Your task to perform on an android device: turn notification dots off Image 0: 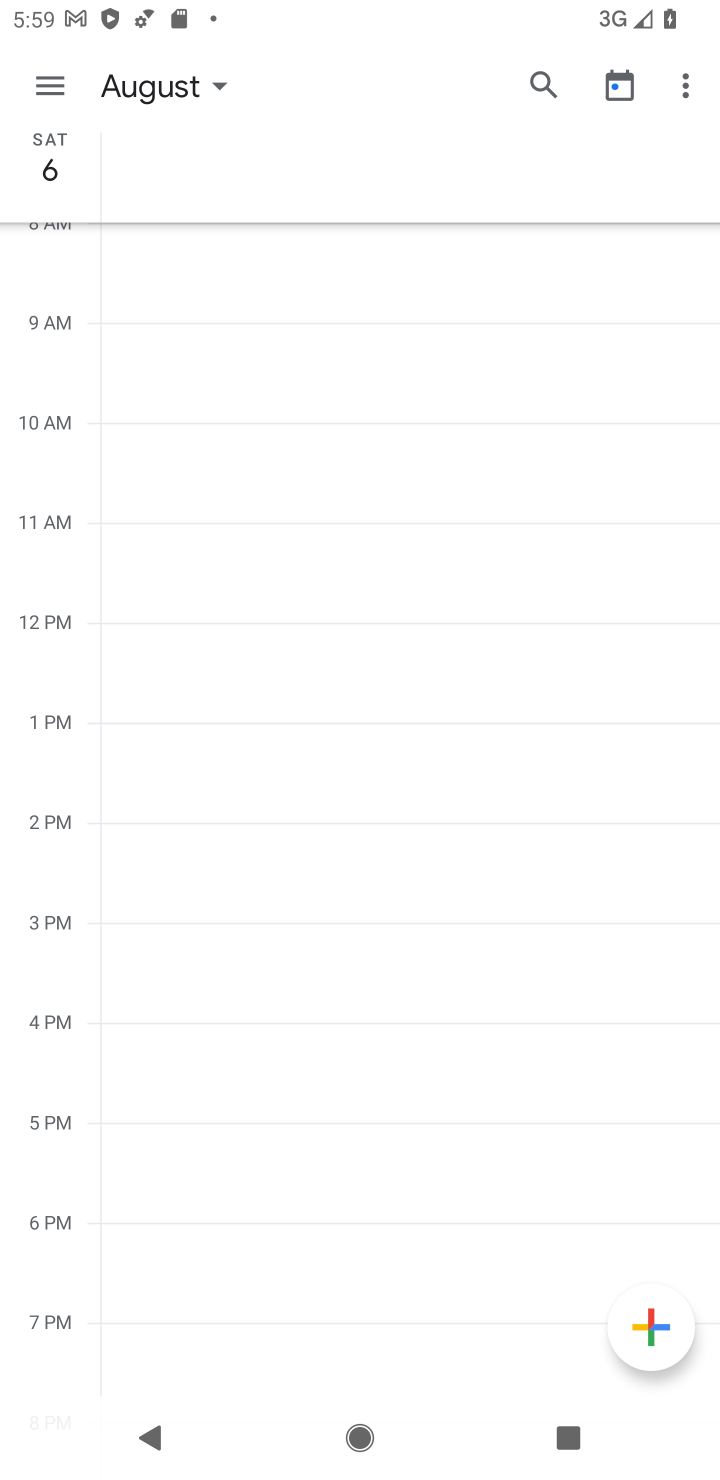
Step 0: press home button
Your task to perform on an android device: turn notification dots off Image 1: 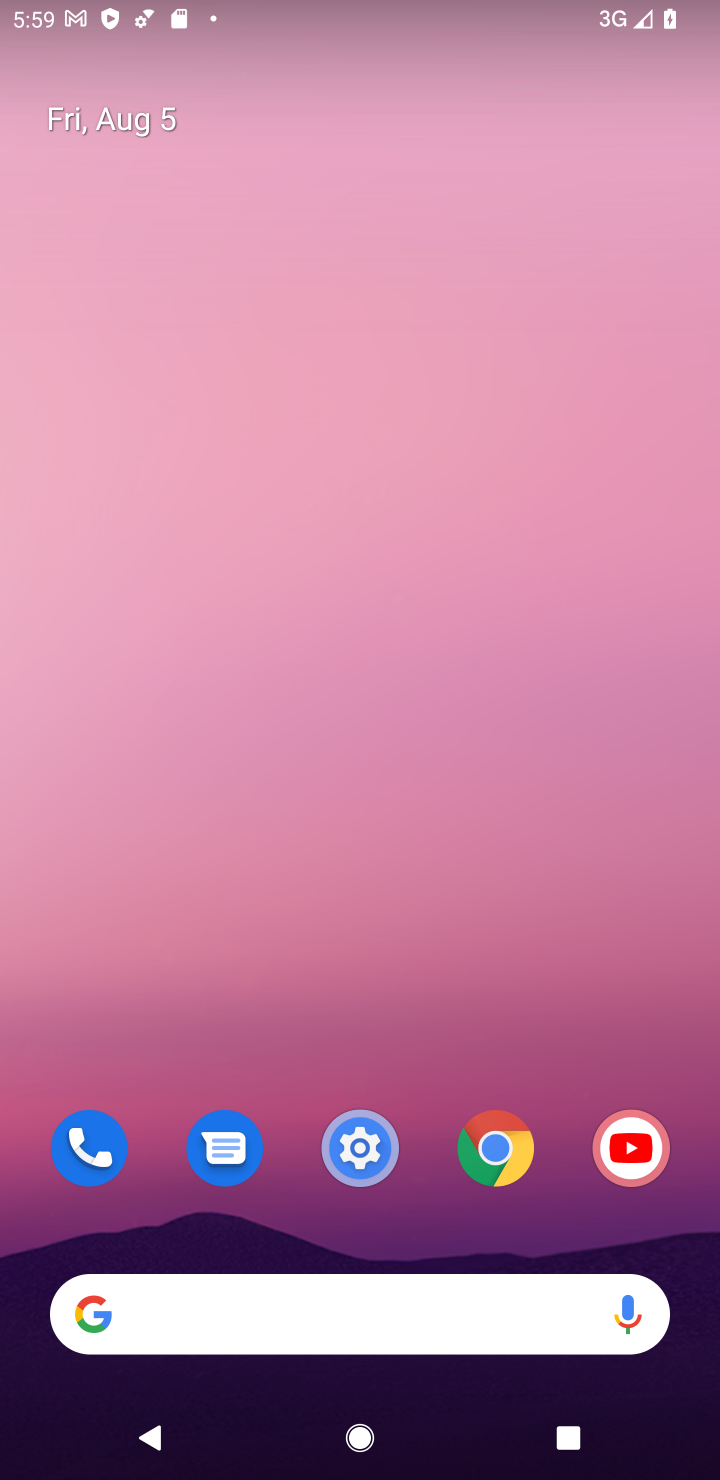
Step 1: click (364, 1148)
Your task to perform on an android device: turn notification dots off Image 2: 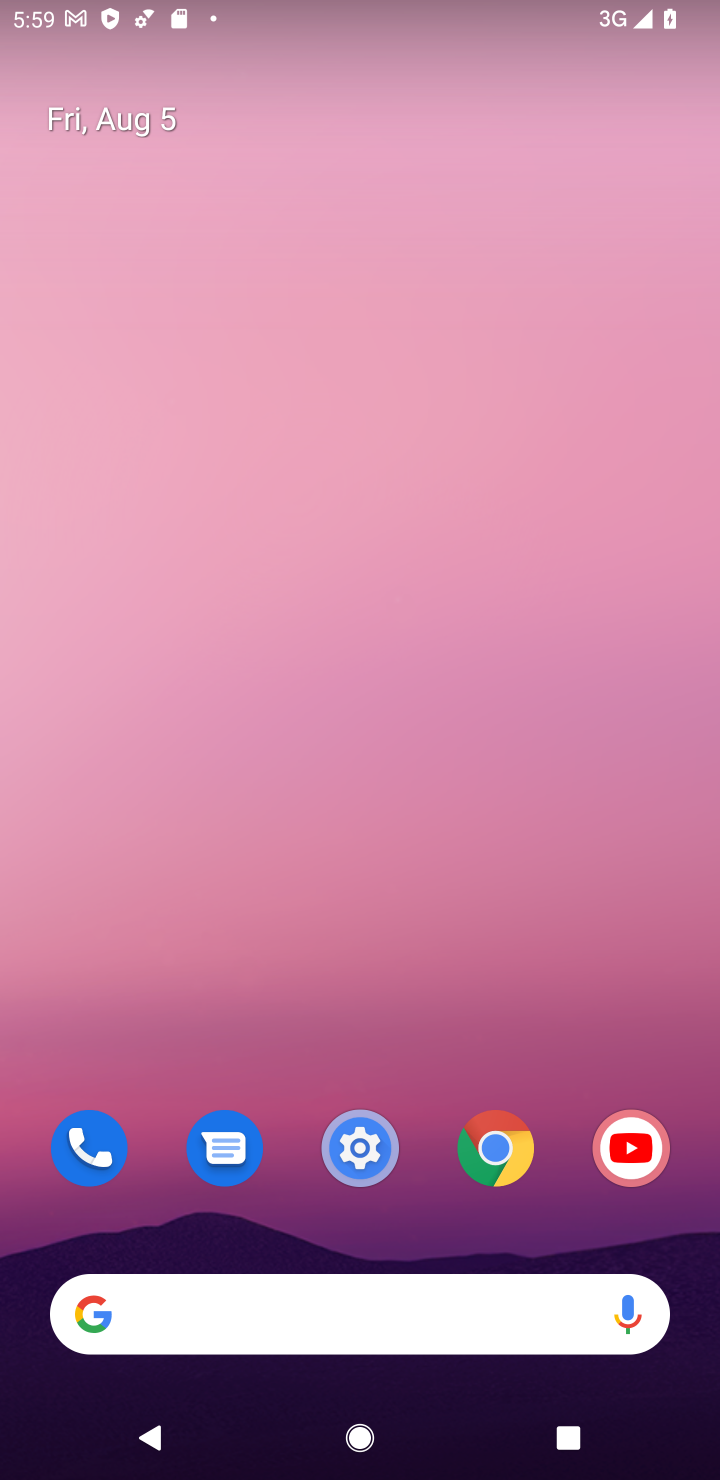
Step 2: click (362, 1143)
Your task to perform on an android device: turn notification dots off Image 3: 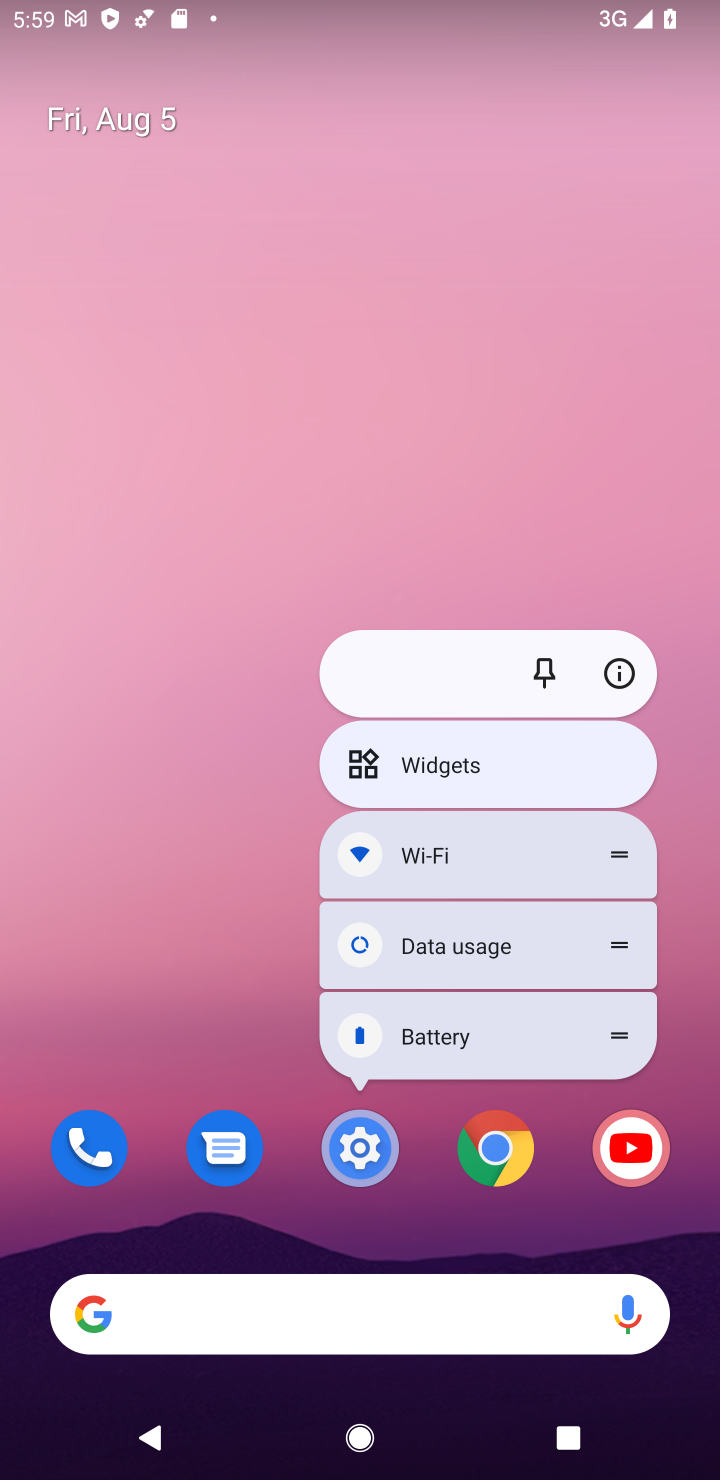
Step 3: click (362, 1143)
Your task to perform on an android device: turn notification dots off Image 4: 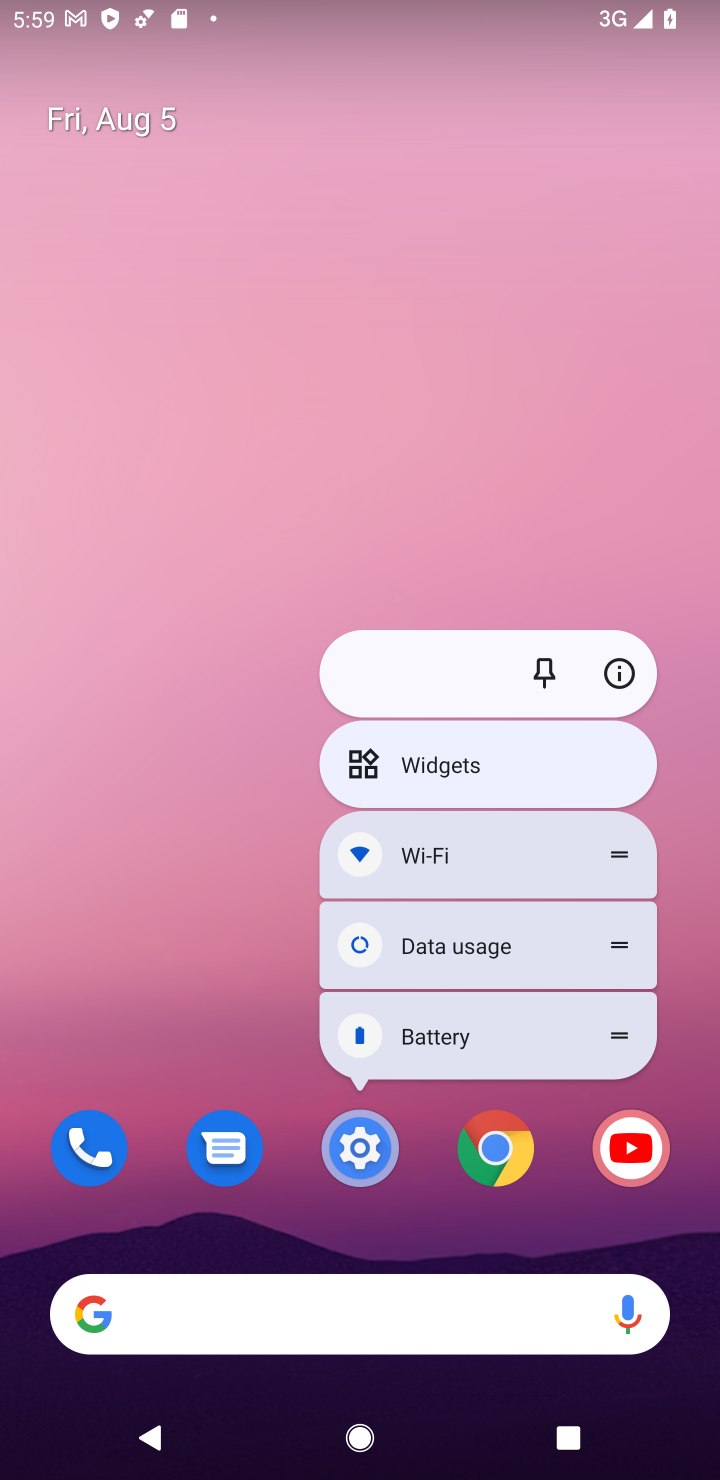
Step 4: click (350, 1157)
Your task to perform on an android device: turn notification dots off Image 5: 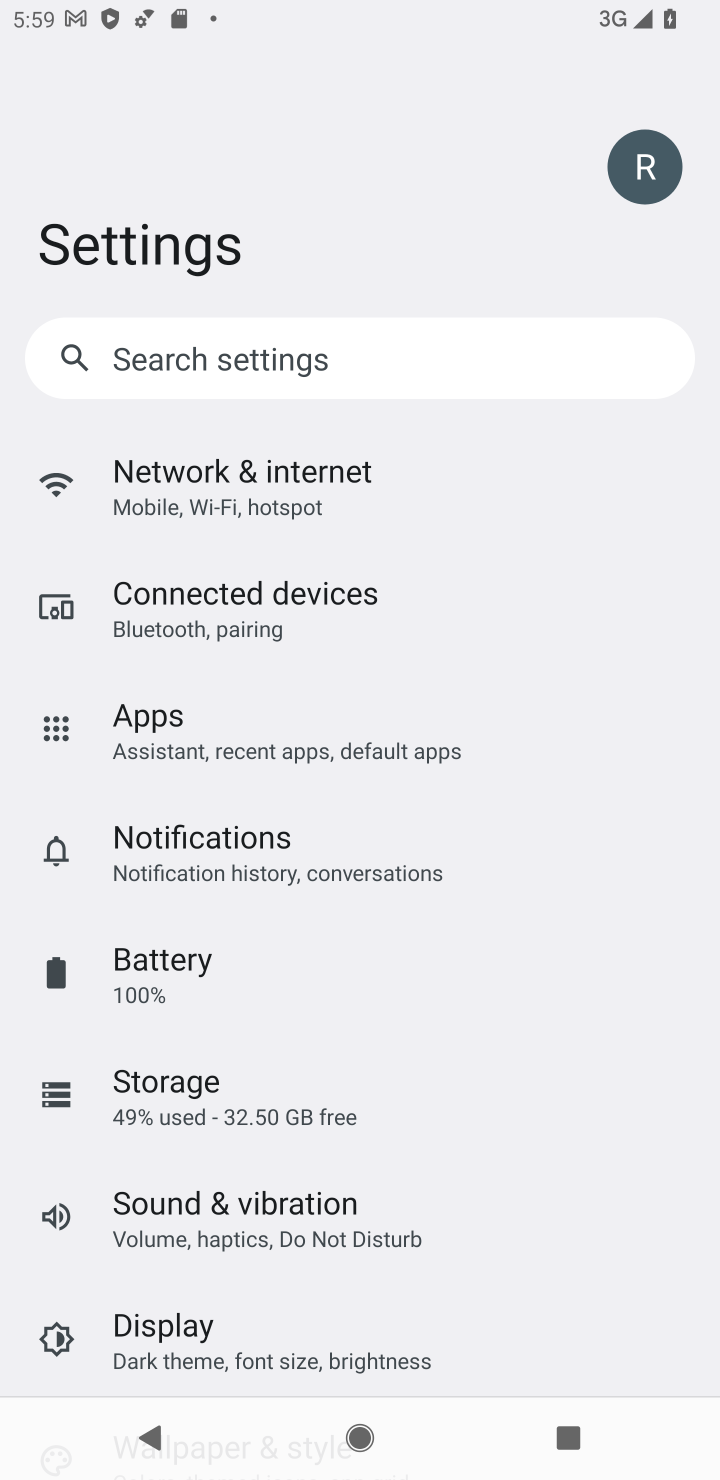
Step 5: click (228, 824)
Your task to perform on an android device: turn notification dots off Image 6: 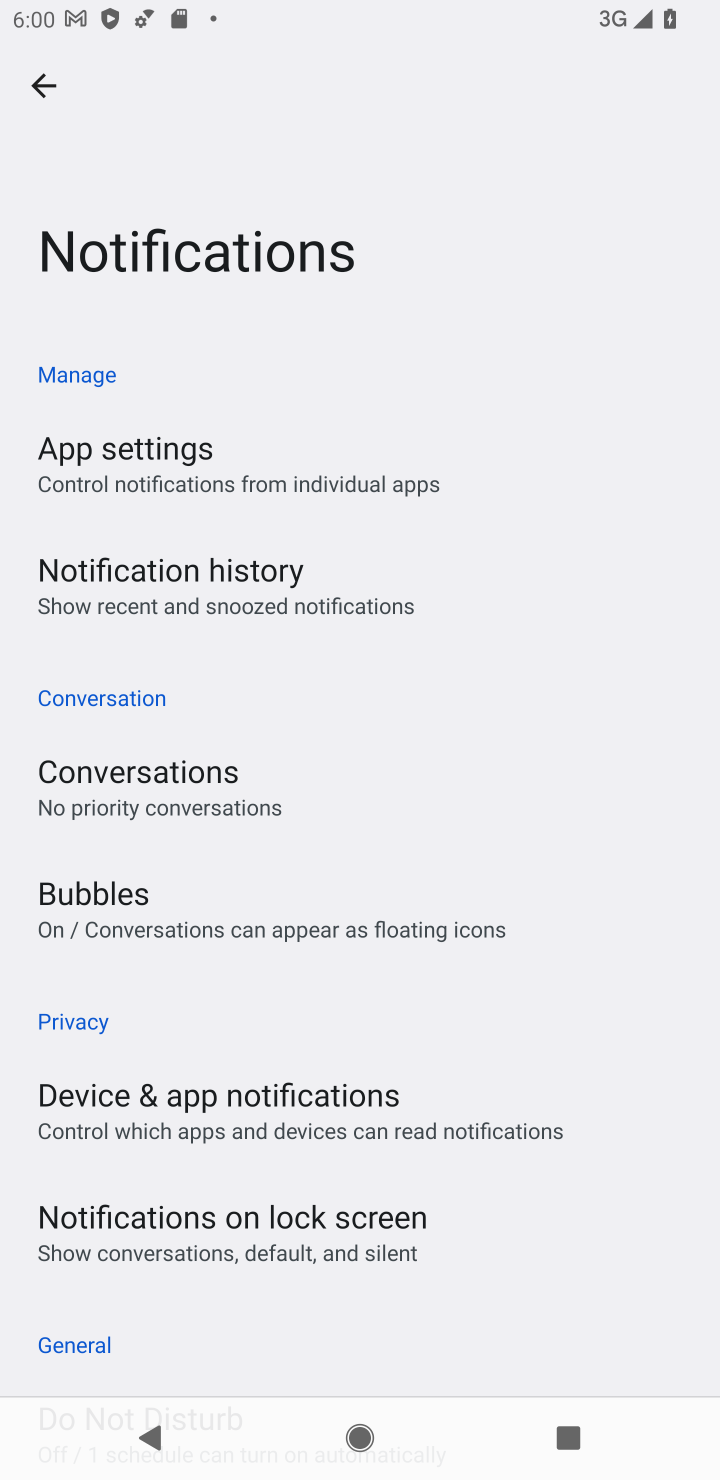
Step 6: drag from (507, 1223) to (501, 513)
Your task to perform on an android device: turn notification dots off Image 7: 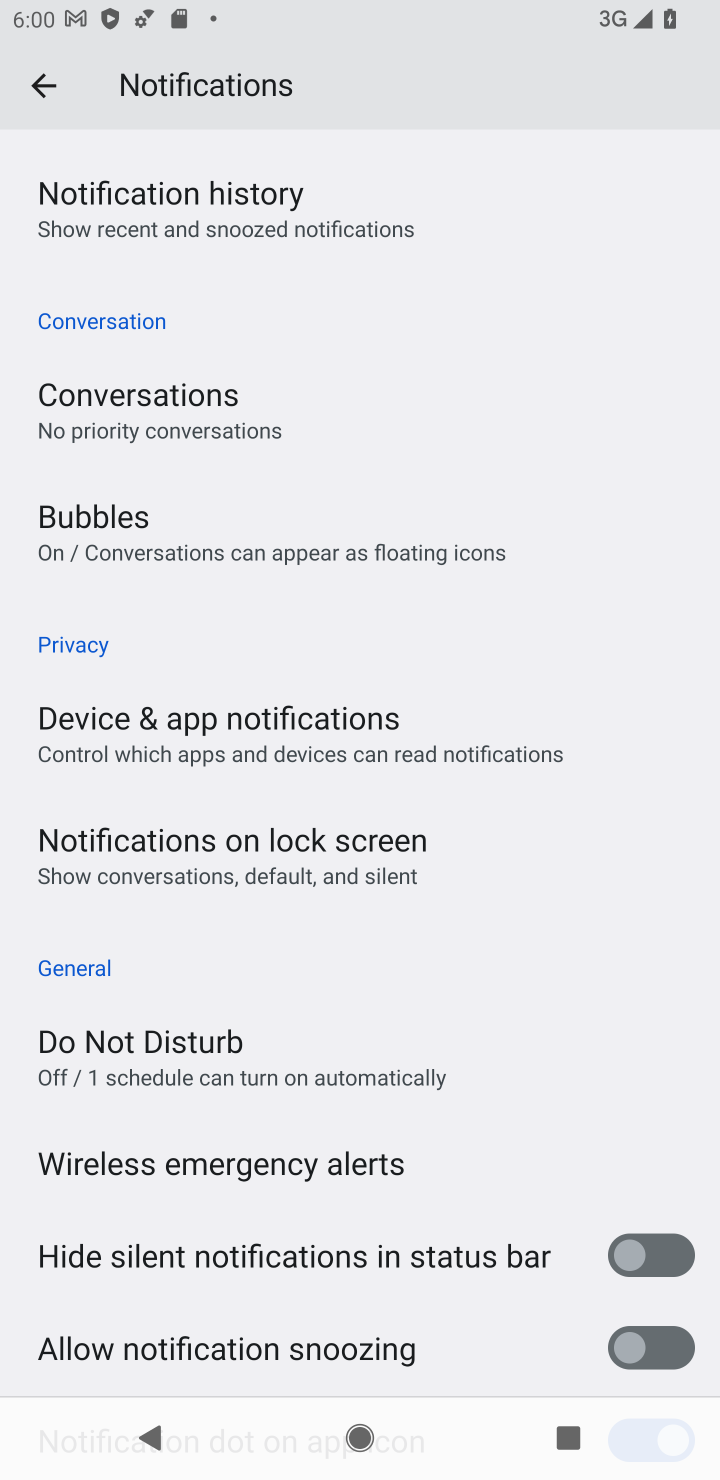
Step 7: drag from (533, 1118) to (502, 508)
Your task to perform on an android device: turn notification dots off Image 8: 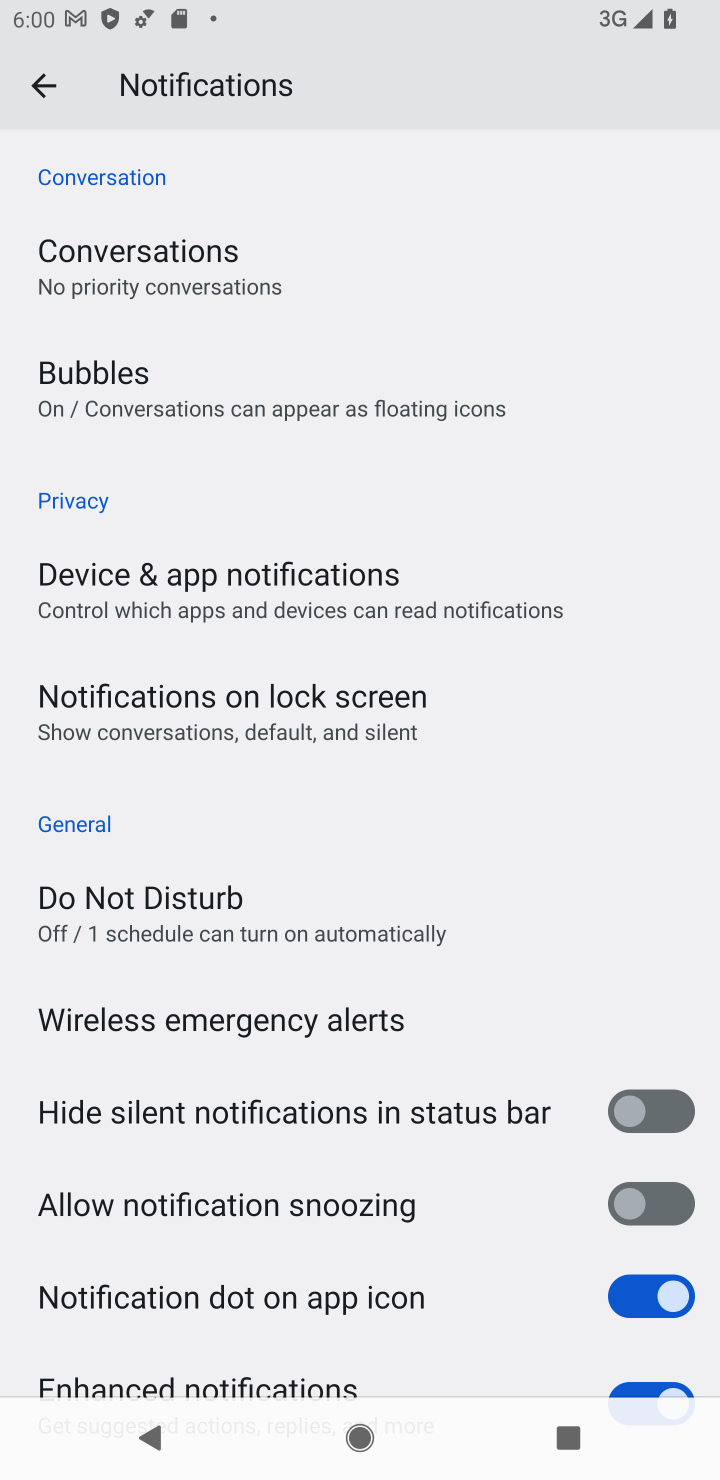
Step 8: click (629, 1285)
Your task to perform on an android device: turn notification dots off Image 9: 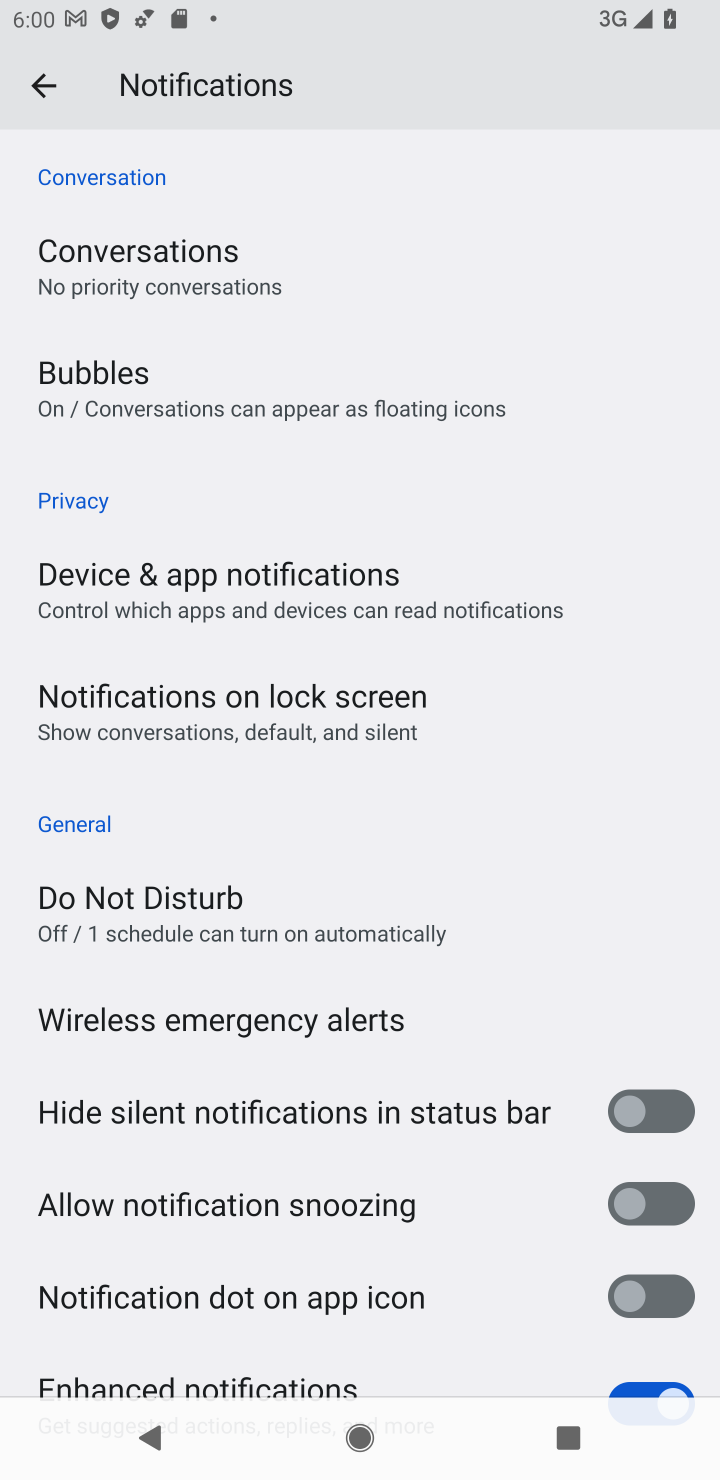
Step 9: task complete